Your task to perform on an android device: View the shopping cart on walmart. Add "bose quietcomfort 35" to the cart on walmart, then select checkout. Image 0: 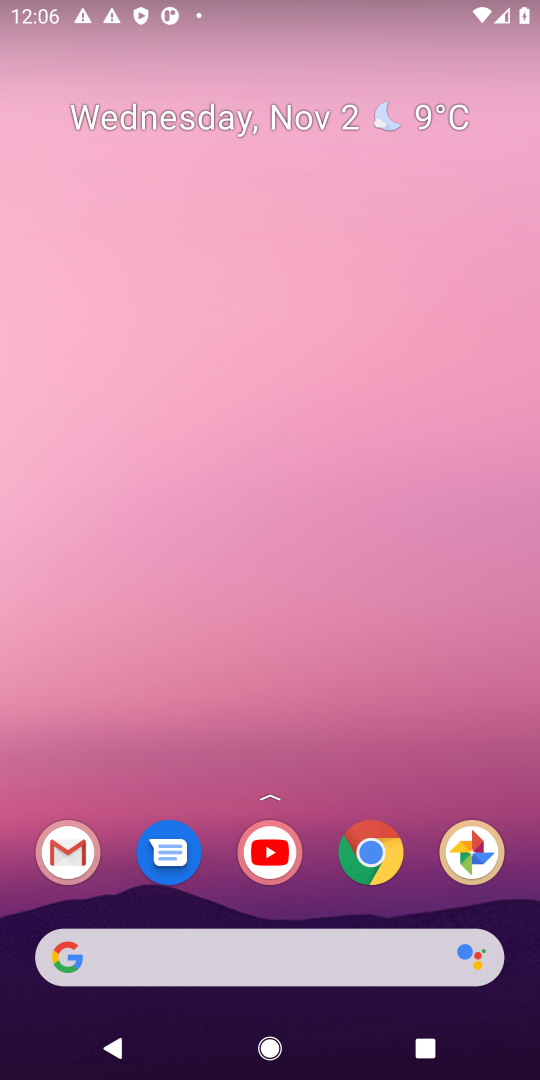
Step 0: drag from (251, 827) to (264, 140)
Your task to perform on an android device: View the shopping cart on walmart. Add "bose quietcomfort 35" to the cart on walmart, then select checkout. Image 1: 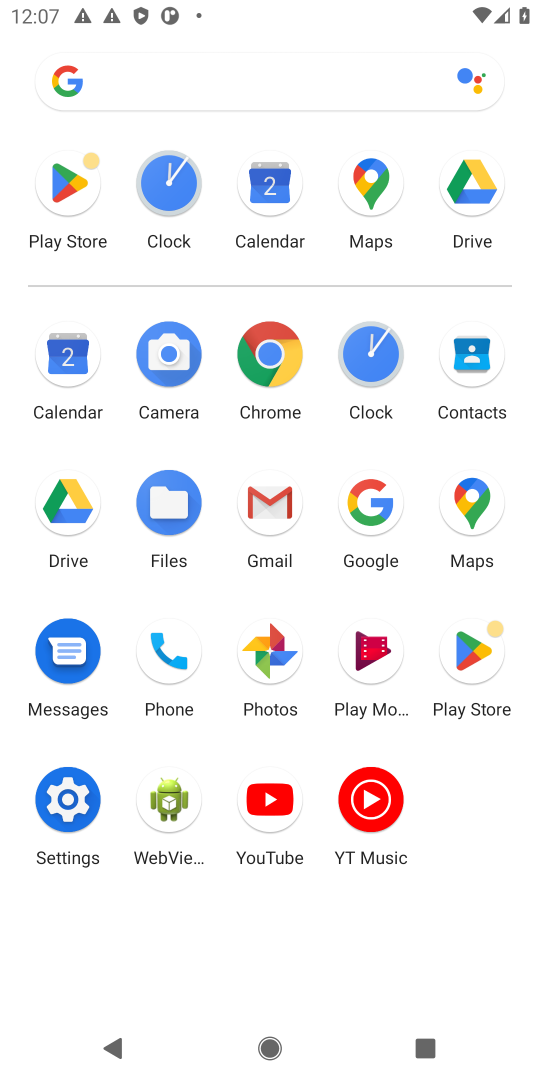
Step 1: click (376, 517)
Your task to perform on an android device: View the shopping cart on walmart. Add "bose quietcomfort 35" to the cart on walmart, then select checkout. Image 2: 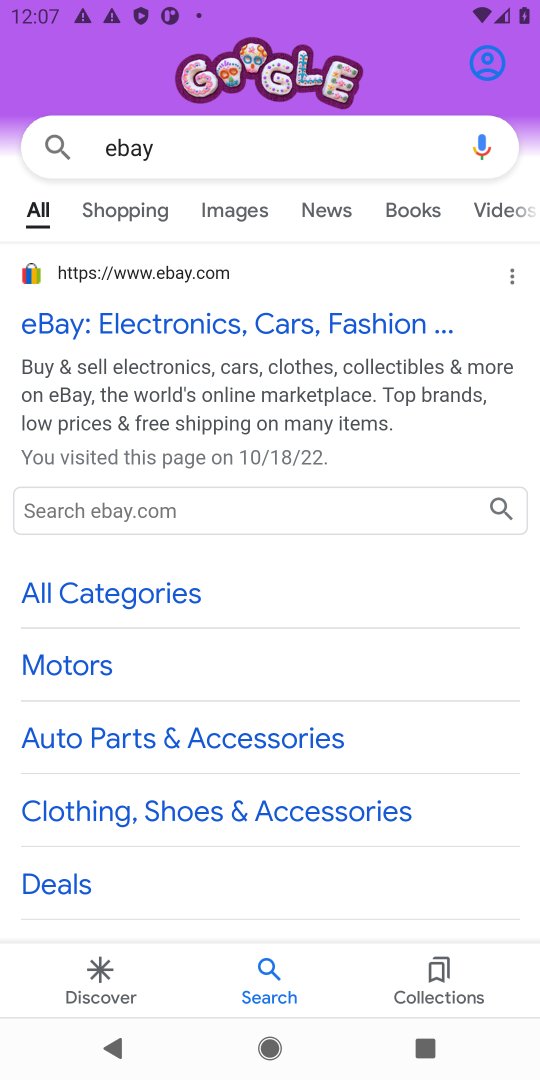
Step 2: click (257, 151)
Your task to perform on an android device: View the shopping cart on walmart. Add "bose quietcomfort 35" to the cart on walmart, then select checkout. Image 3: 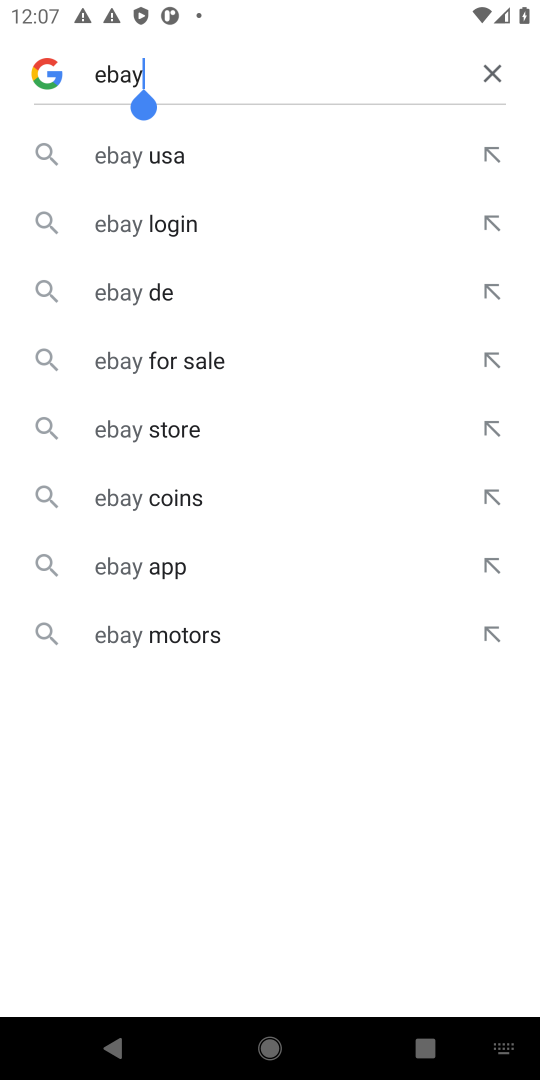
Step 3: click (495, 76)
Your task to perform on an android device: View the shopping cart on walmart. Add "bose quietcomfort 35" to the cart on walmart, then select checkout. Image 4: 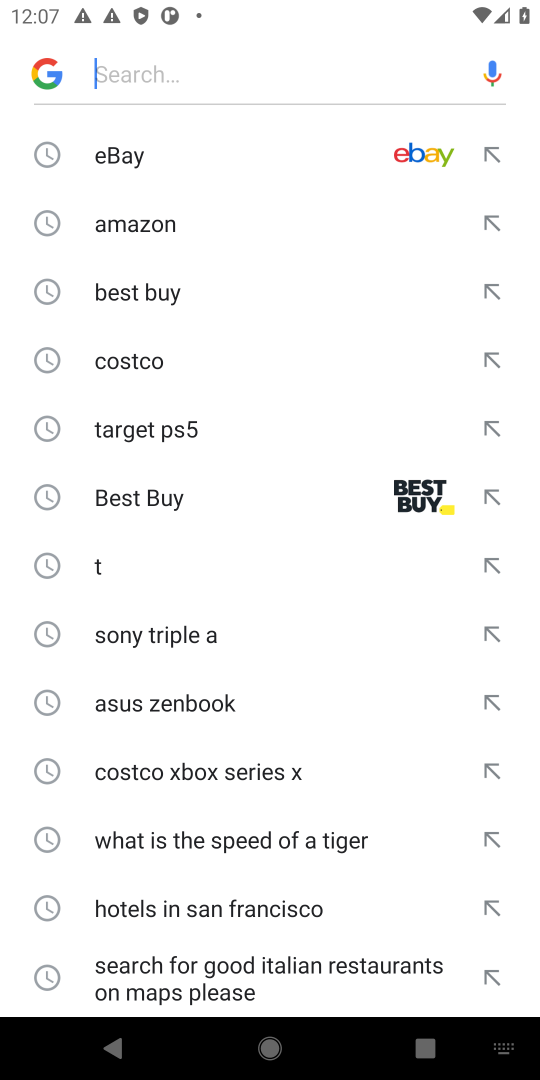
Step 4: type "walmart"
Your task to perform on an android device: View the shopping cart on walmart. Add "bose quietcomfort 35" to the cart on walmart, then select checkout. Image 5: 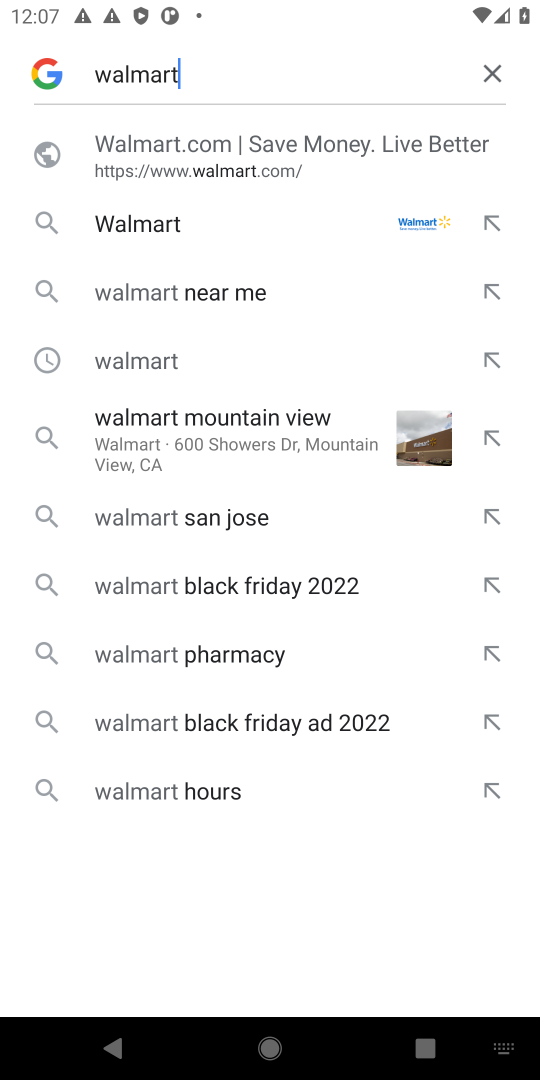
Step 5: click (319, 172)
Your task to perform on an android device: View the shopping cart on walmart. Add "bose quietcomfort 35" to the cart on walmart, then select checkout. Image 6: 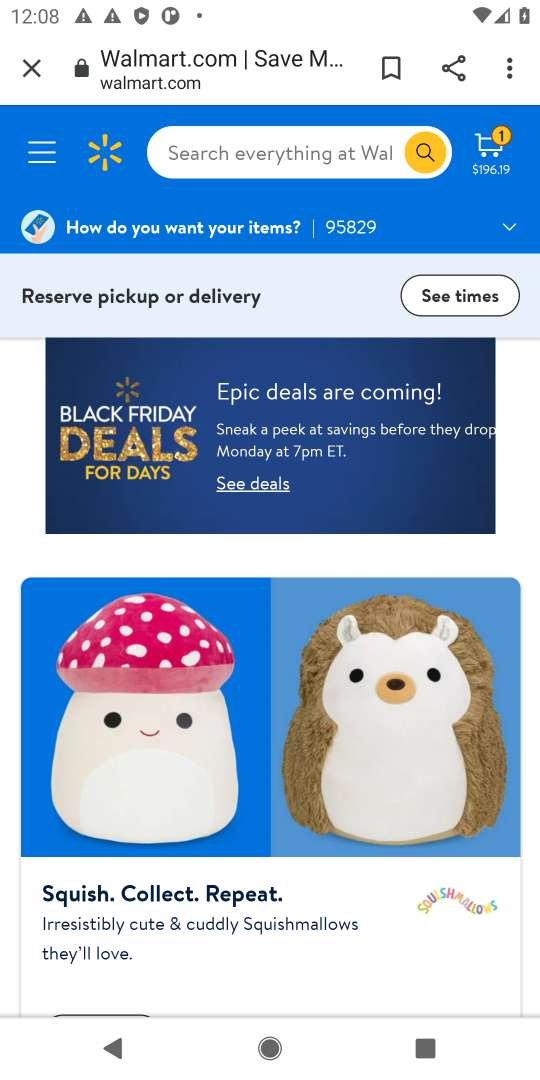
Step 6: click (233, 150)
Your task to perform on an android device: View the shopping cart on walmart. Add "bose quietcomfort 35" to the cart on walmart, then select checkout. Image 7: 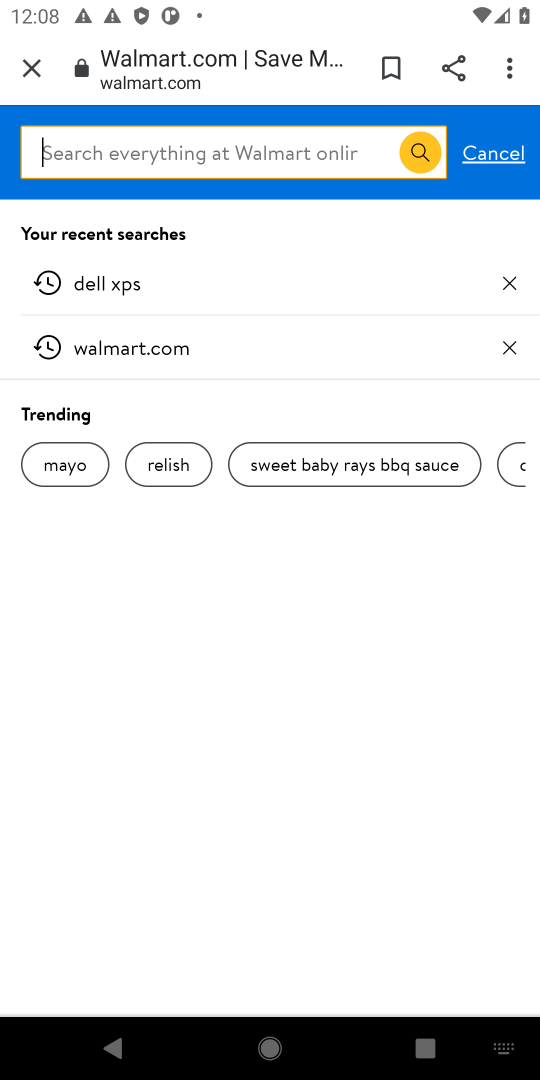
Step 7: type "bose quietcomfort 35"
Your task to perform on an android device: View the shopping cart on walmart. Add "bose quietcomfort 35" to the cart on walmart, then select checkout. Image 8: 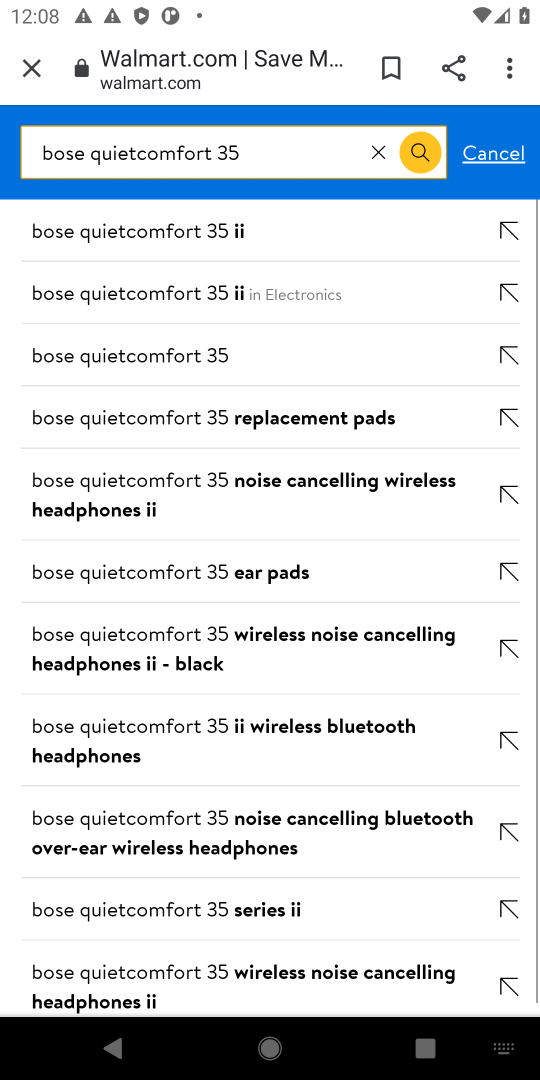
Step 8: click (388, 362)
Your task to perform on an android device: View the shopping cart on walmart. Add "bose quietcomfort 35" to the cart on walmart, then select checkout. Image 9: 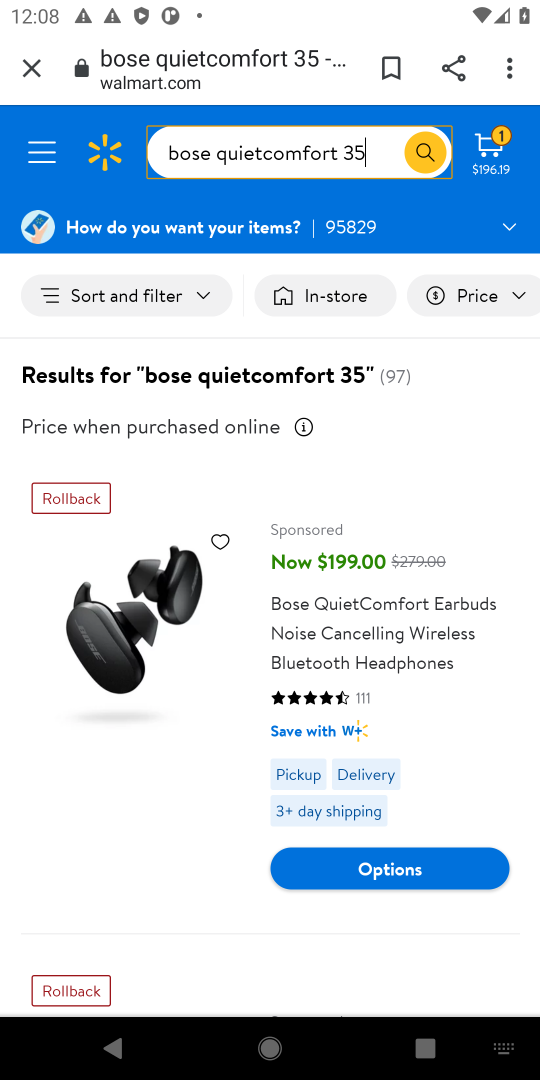
Step 9: click (429, 884)
Your task to perform on an android device: View the shopping cart on walmart. Add "bose quietcomfort 35" to the cart on walmart, then select checkout. Image 10: 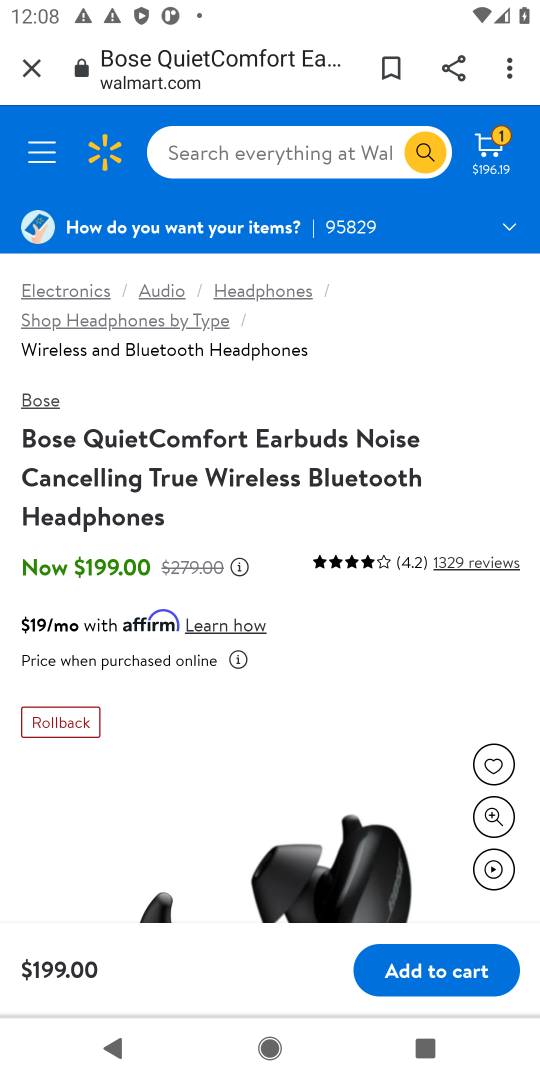
Step 10: click (427, 974)
Your task to perform on an android device: View the shopping cart on walmart. Add "bose quietcomfort 35" to the cart on walmart, then select checkout. Image 11: 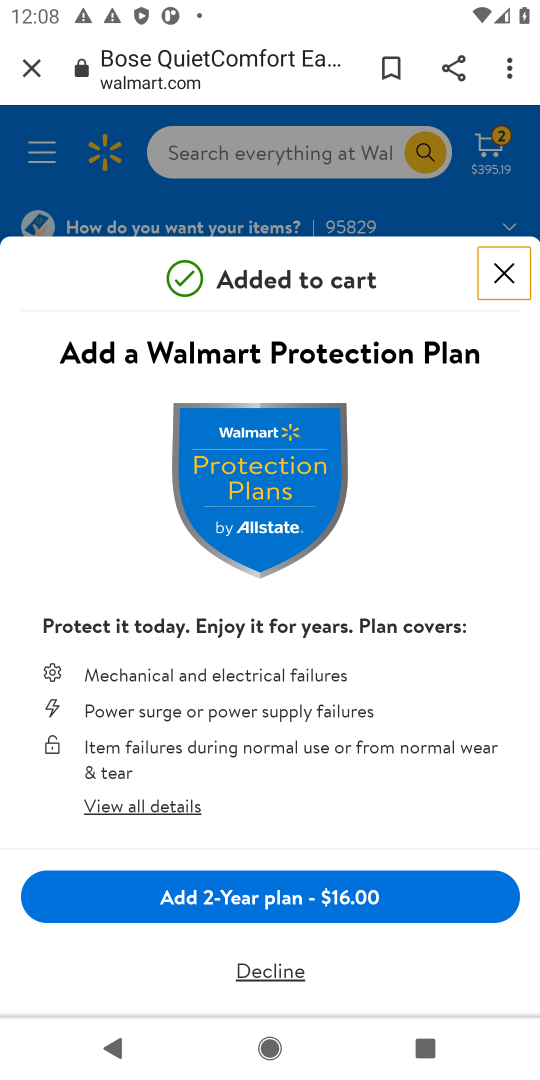
Step 11: click (504, 286)
Your task to perform on an android device: View the shopping cart on walmart. Add "bose quietcomfort 35" to the cart on walmart, then select checkout. Image 12: 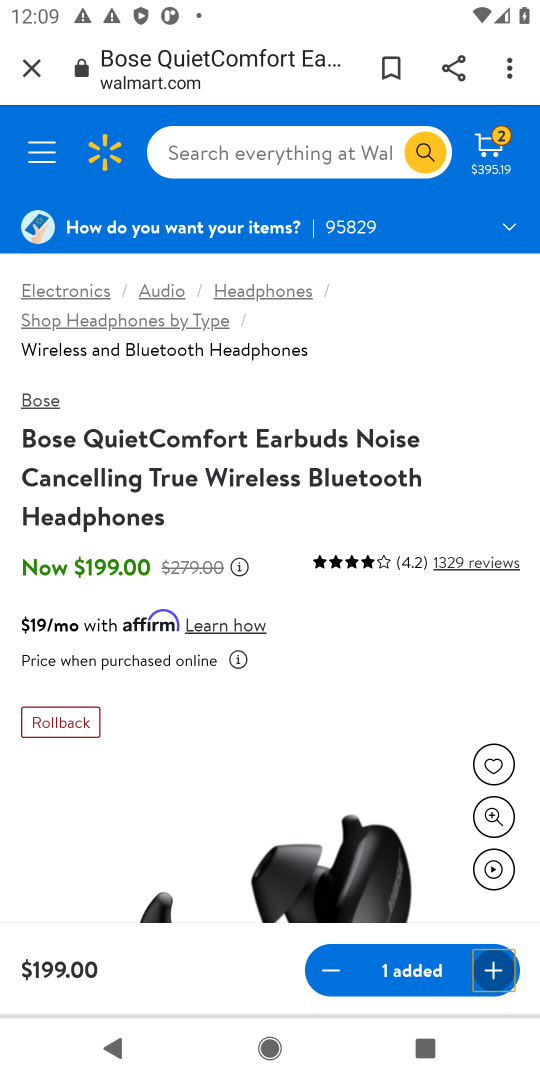
Step 12: click (504, 140)
Your task to perform on an android device: View the shopping cart on walmart. Add "bose quietcomfort 35" to the cart on walmart, then select checkout. Image 13: 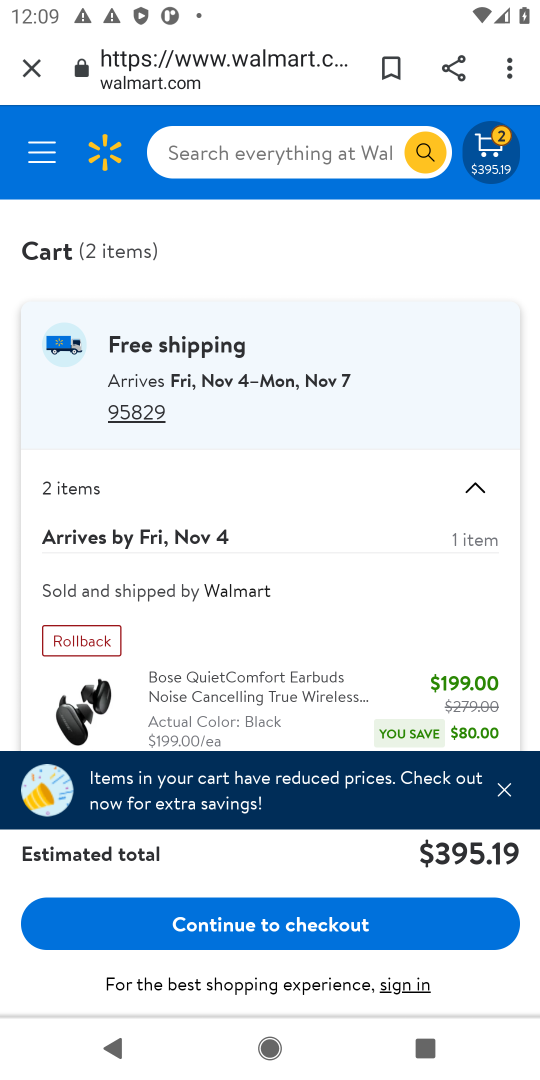
Step 13: click (367, 920)
Your task to perform on an android device: View the shopping cart on walmart. Add "bose quietcomfort 35" to the cart on walmart, then select checkout. Image 14: 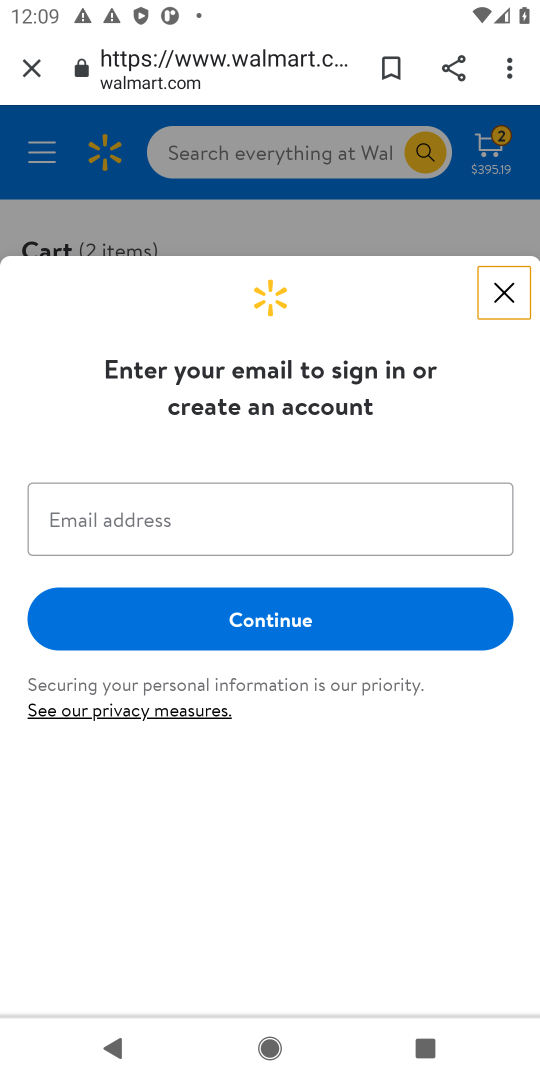
Step 14: task complete